Your task to perform on an android device: Open Google Maps Image 0: 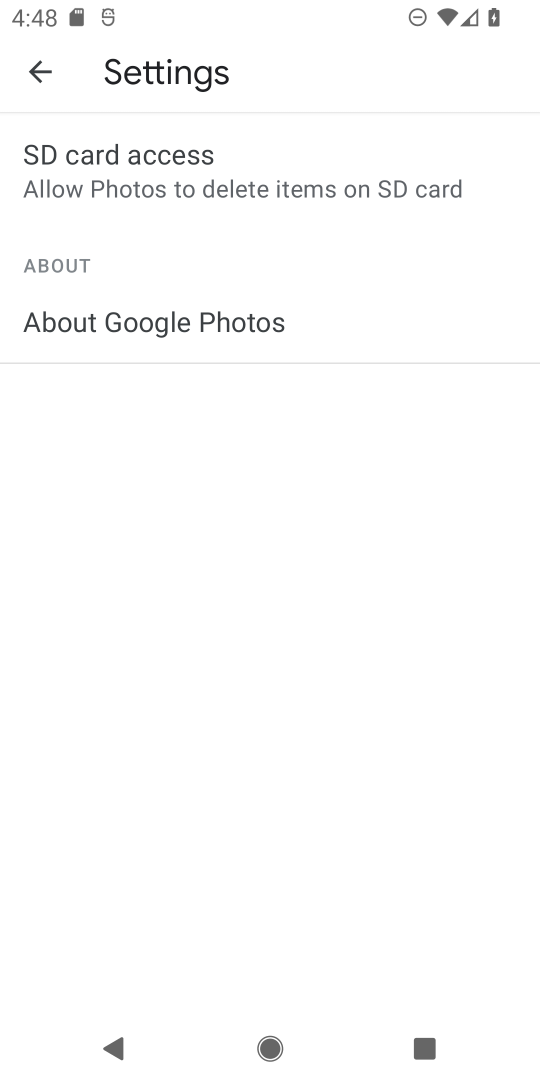
Step 0: press home button
Your task to perform on an android device: Open Google Maps Image 1: 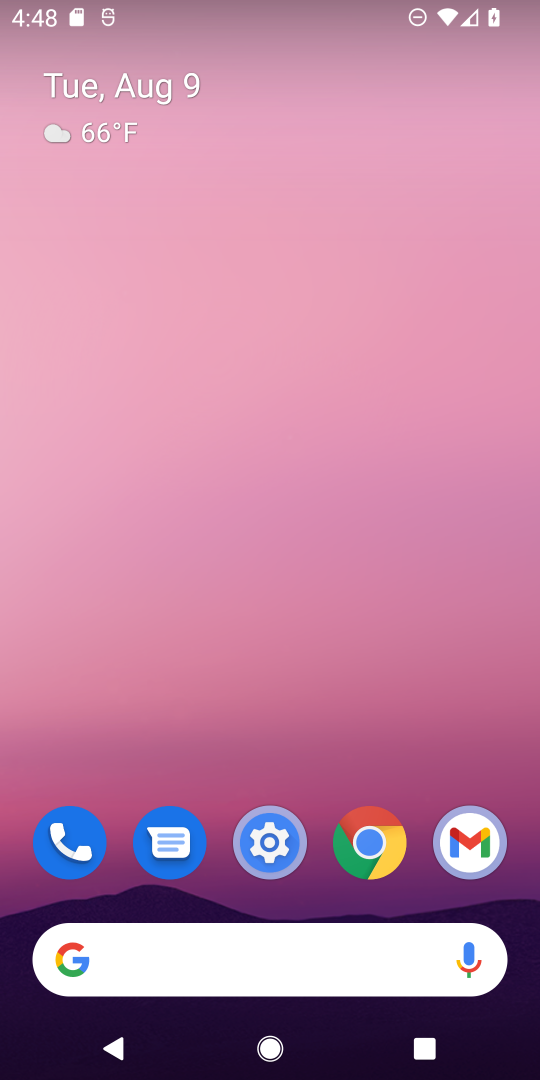
Step 1: drag from (261, 975) to (192, 13)
Your task to perform on an android device: Open Google Maps Image 2: 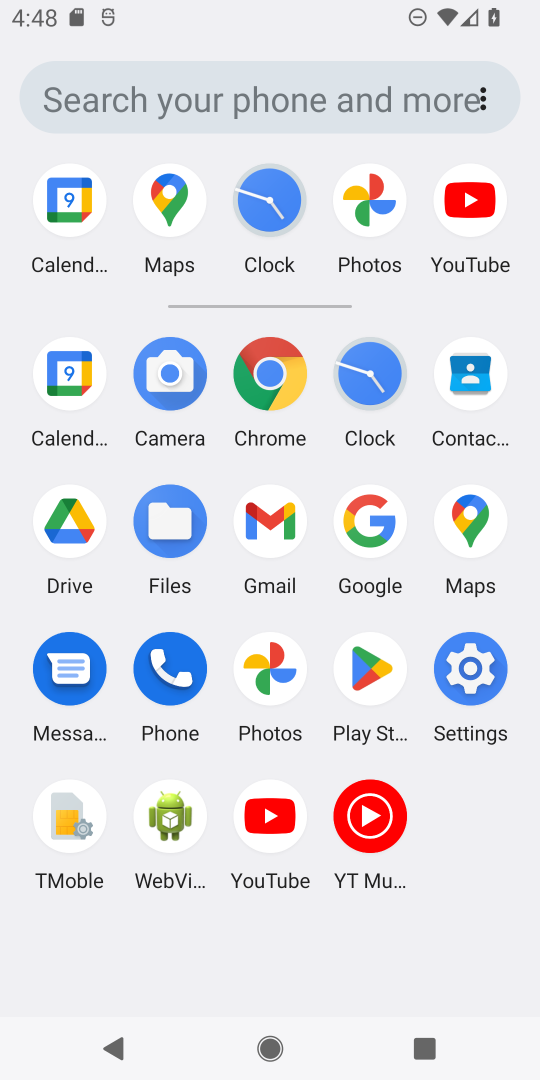
Step 2: click (471, 516)
Your task to perform on an android device: Open Google Maps Image 3: 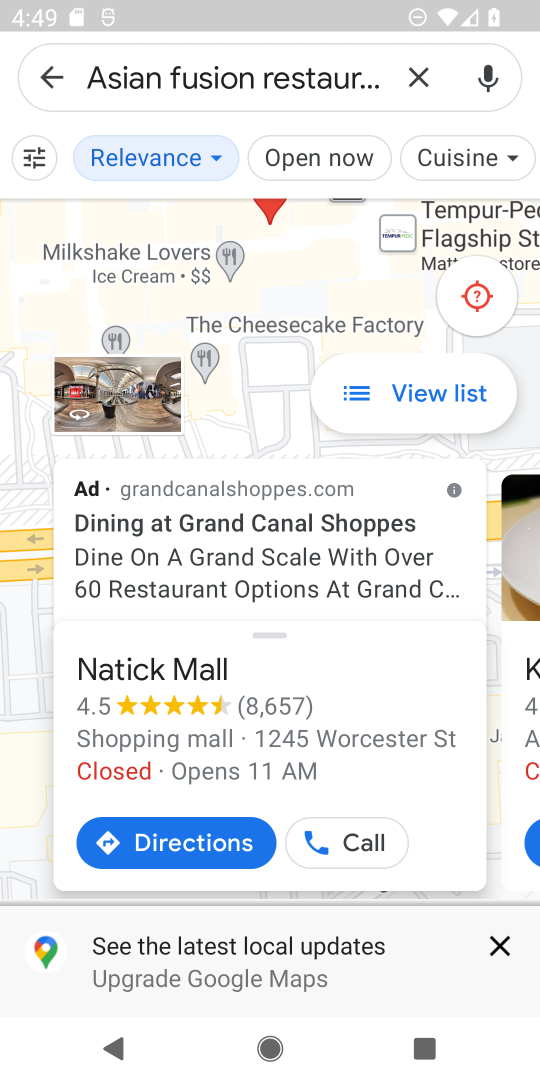
Step 3: task complete